Your task to perform on an android device: check data usage Image 0: 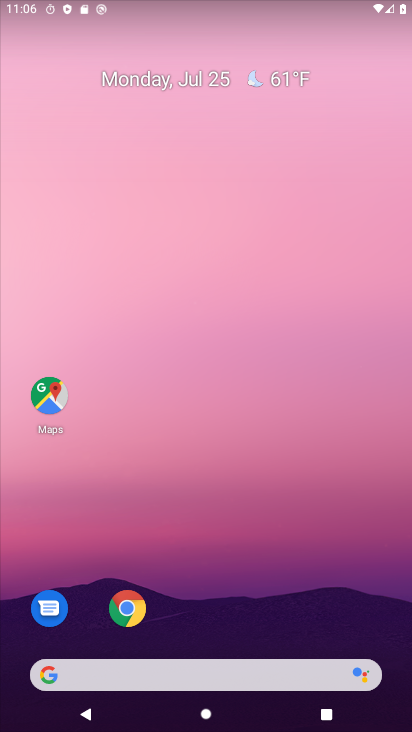
Step 0: drag from (210, 595) to (144, 0)
Your task to perform on an android device: check data usage Image 1: 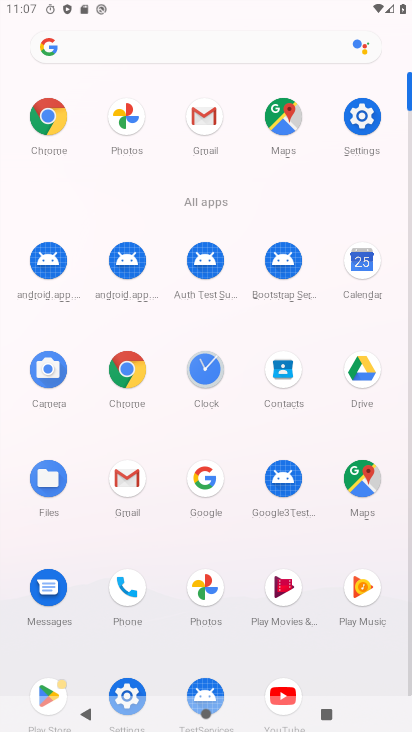
Step 1: click (364, 111)
Your task to perform on an android device: check data usage Image 2: 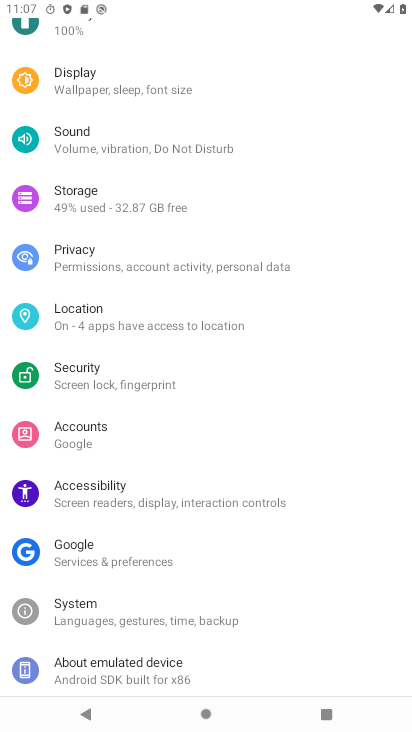
Step 2: drag from (166, 154) to (230, 731)
Your task to perform on an android device: check data usage Image 3: 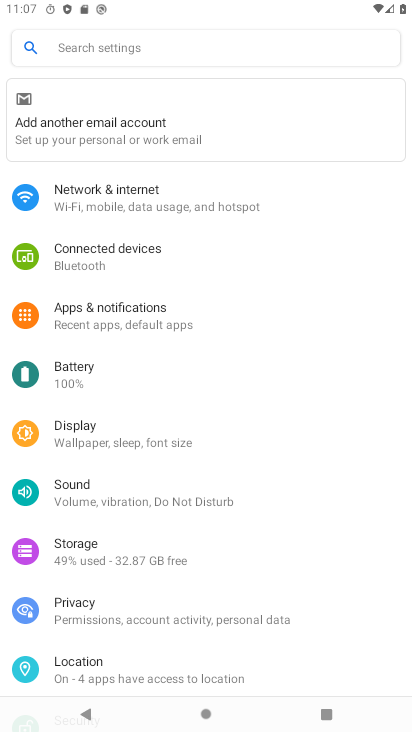
Step 3: click (89, 196)
Your task to perform on an android device: check data usage Image 4: 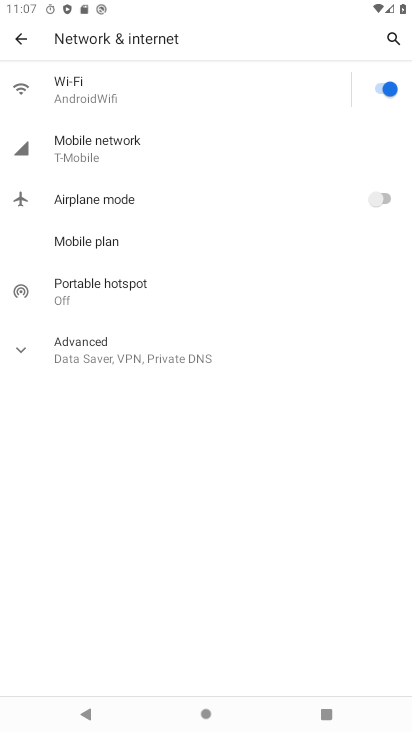
Step 4: click (94, 146)
Your task to perform on an android device: check data usage Image 5: 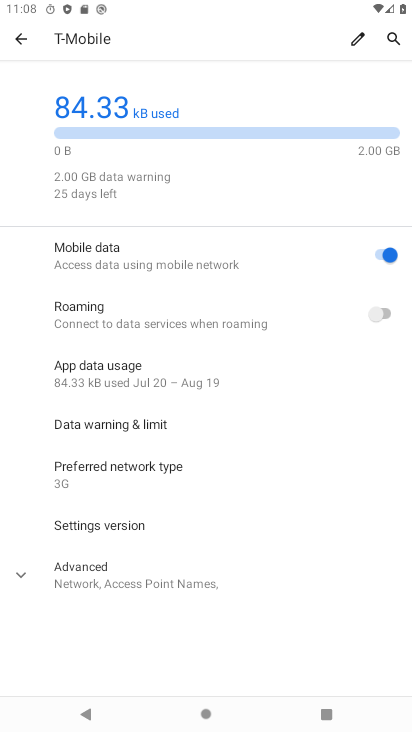
Step 5: task complete